Your task to perform on an android device: turn on translation in the chrome app Image 0: 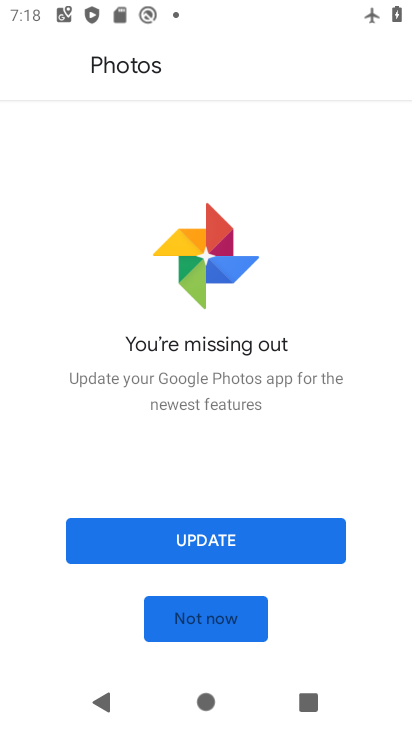
Step 0: press back button
Your task to perform on an android device: turn on translation in the chrome app Image 1: 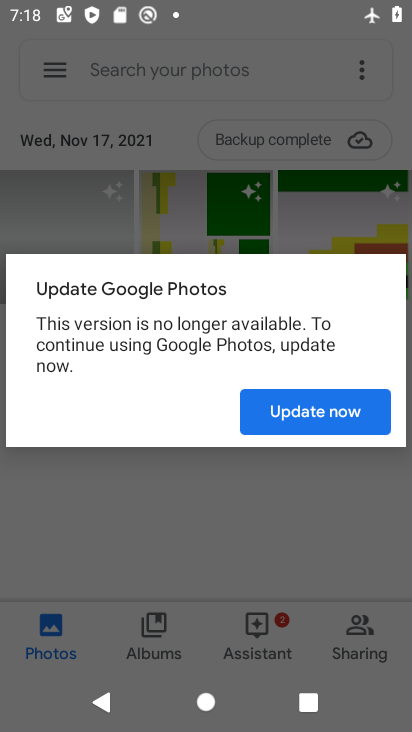
Step 1: press back button
Your task to perform on an android device: turn on translation in the chrome app Image 2: 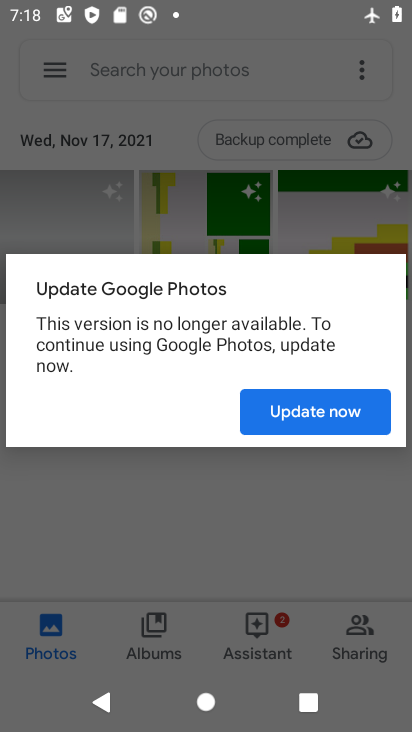
Step 2: press back button
Your task to perform on an android device: turn on translation in the chrome app Image 3: 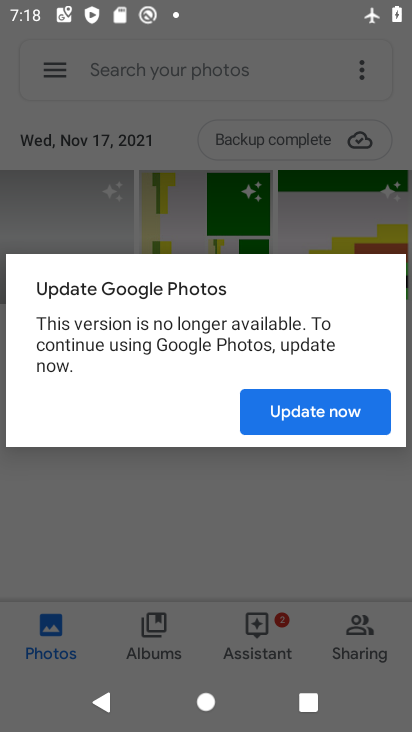
Step 3: press home button
Your task to perform on an android device: turn on translation in the chrome app Image 4: 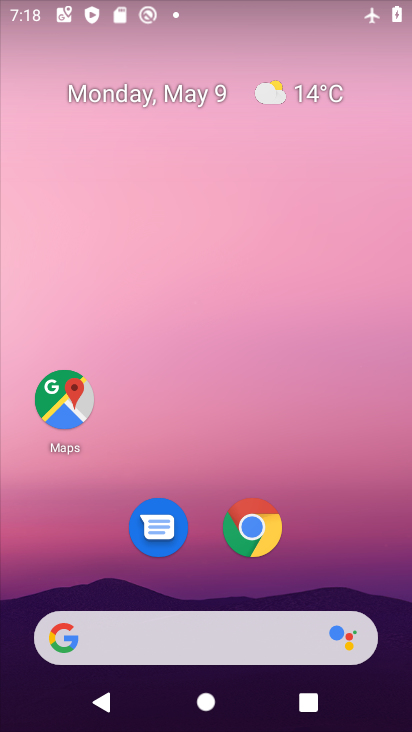
Step 4: click (253, 526)
Your task to perform on an android device: turn on translation in the chrome app Image 5: 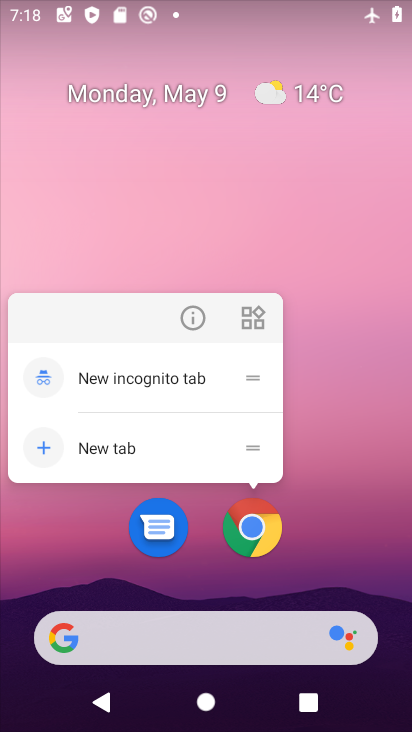
Step 5: click (253, 526)
Your task to perform on an android device: turn on translation in the chrome app Image 6: 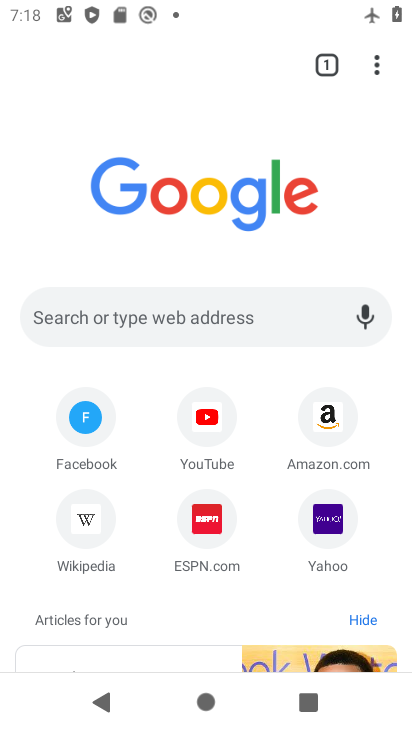
Step 6: drag from (376, 69) to (164, 564)
Your task to perform on an android device: turn on translation in the chrome app Image 7: 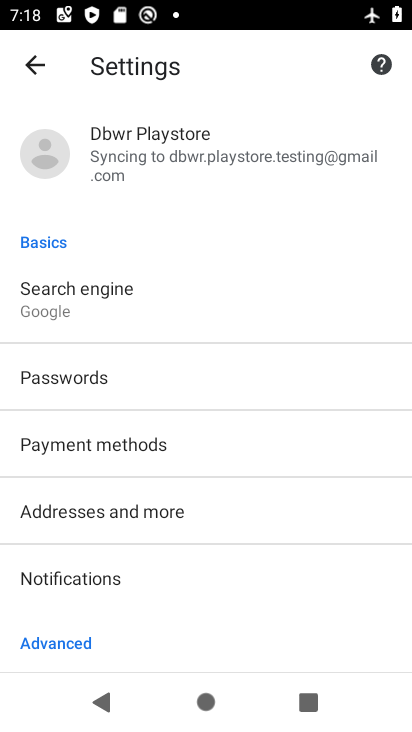
Step 7: drag from (133, 533) to (165, 402)
Your task to perform on an android device: turn on translation in the chrome app Image 8: 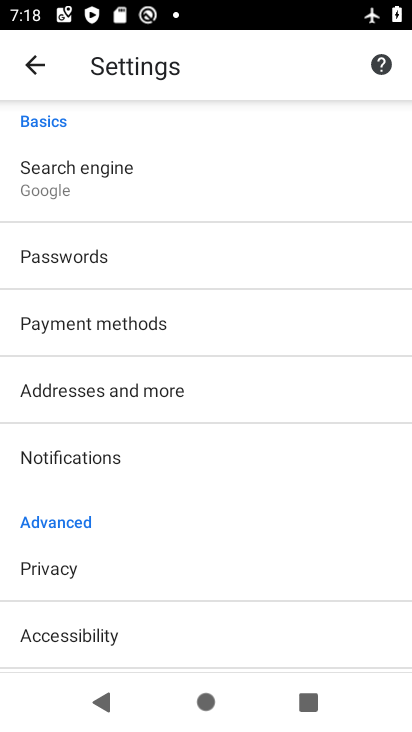
Step 8: drag from (142, 560) to (196, 420)
Your task to perform on an android device: turn on translation in the chrome app Image 9: 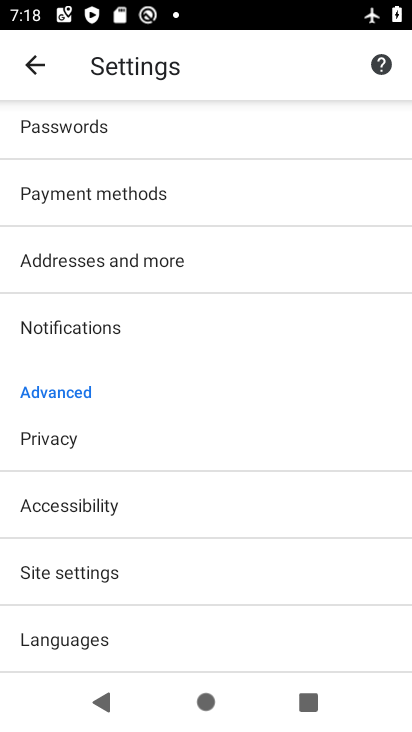
Step 9: drag from (150, 573) to (207, 450)
Your task to perform on an android device: turn on translation in the chrome app Image 10: 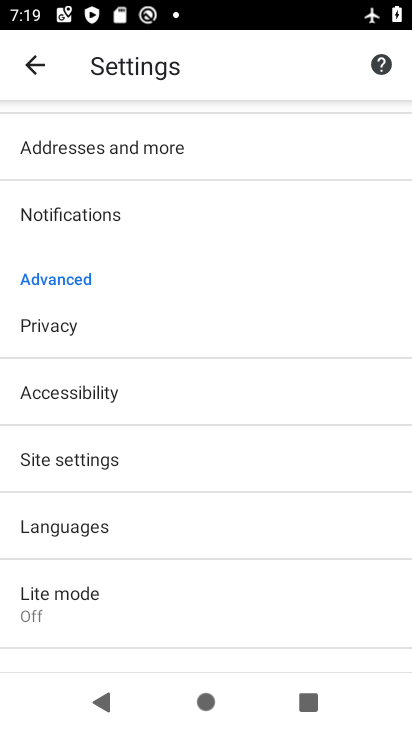
Step 10: click (73, 530)
Your task to perform on an android device: turn on translation in the chrome app Image 11: 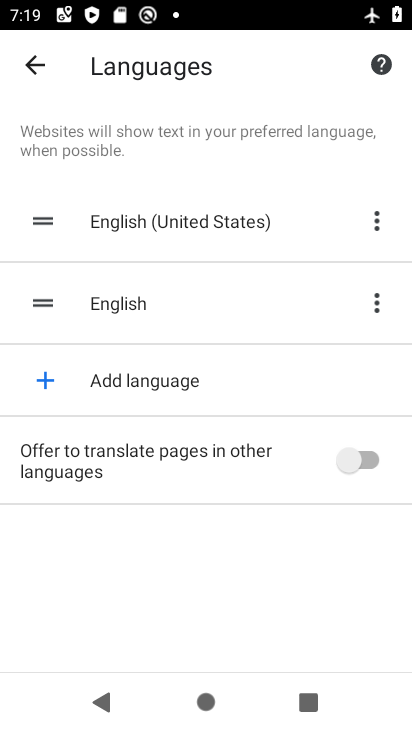
Step 11: click (355, 454)
Your task to perform on an android device: turn on translation in the chrome app Image 12: 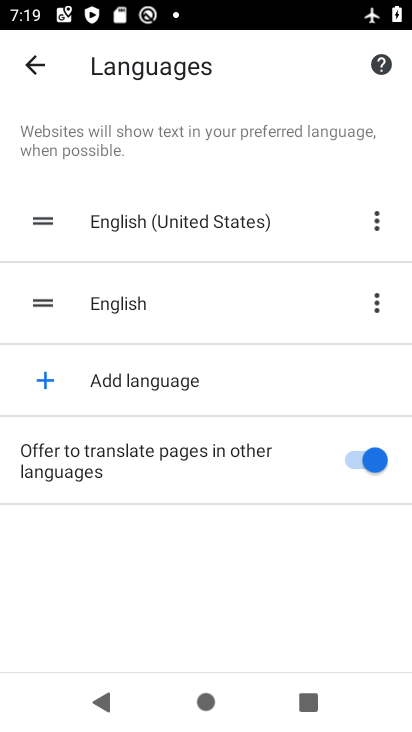
Step 12: task complete